Your task to perform on an android device: empty trash in the gmail app Image 0: 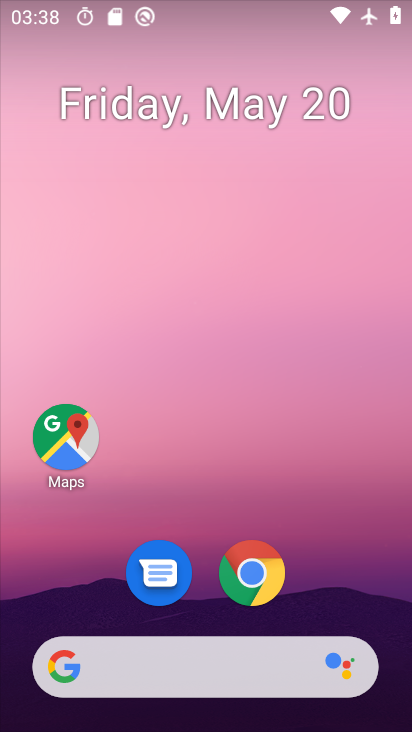
Step 0: drag from (209, 616) to (147, 224)
Your task to perform on an android device: empty trash in the gmail app Image 1: 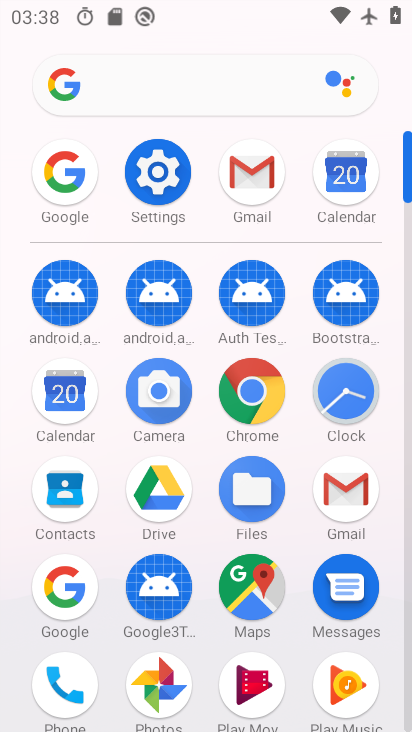
Step 1: click (337, 499)
Your task to perform on an android device: empty trash in the gmail app Image 2: 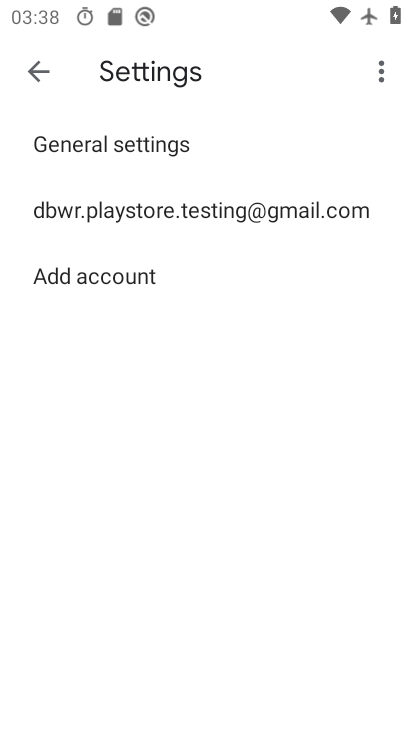
Step 2: click (20, 68)
Your task to perform on an android device: empty trash in the gmail app Image 3: 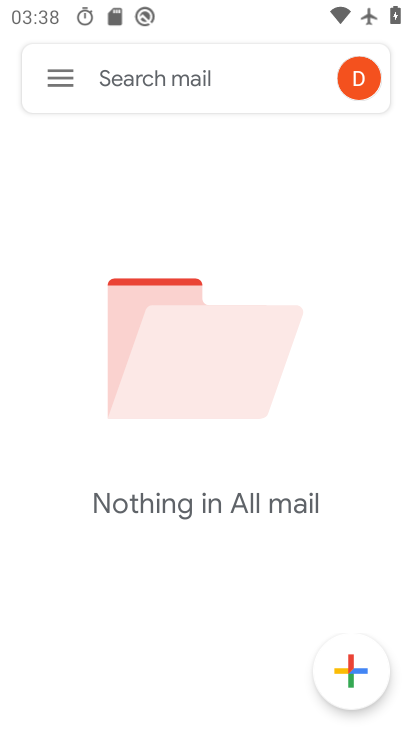
Step 3: click (52, 62)
Your task to perform on an android device: empty trash in the gmail app Image 4: 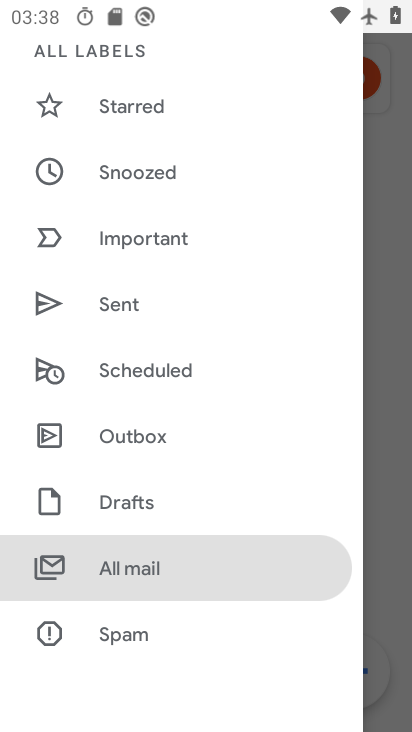
Step 4: drag from (144, 555) to (160, 327)
Your task to perform on an android device: empty trash in the gmail app Image 5: 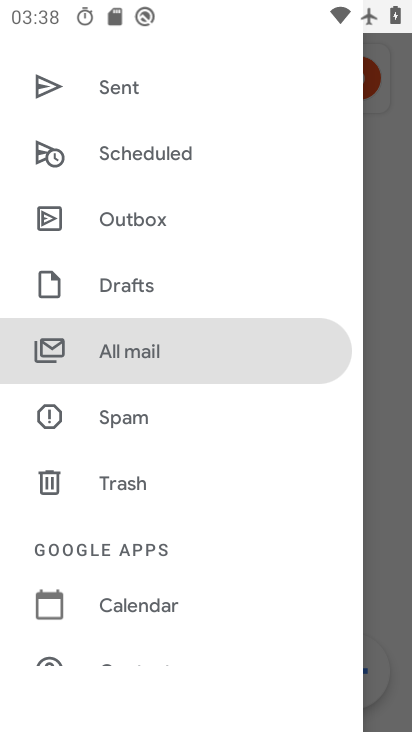
Step 5: click (126, 481)
Your task to perform on an android device: empty trash in the gmail app Image 6: 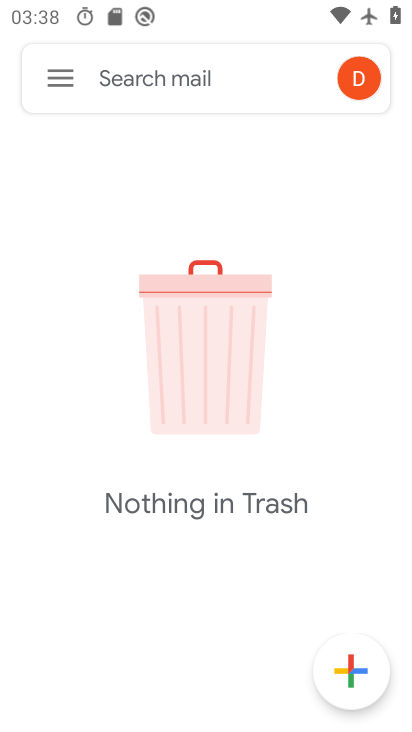
Step 6: task complete